Your task to perform on an android device: Clear the shopping cart on costco.com. Search for logitech g pro on costco.com, select the first entry, and add it to the cart. Image 0: 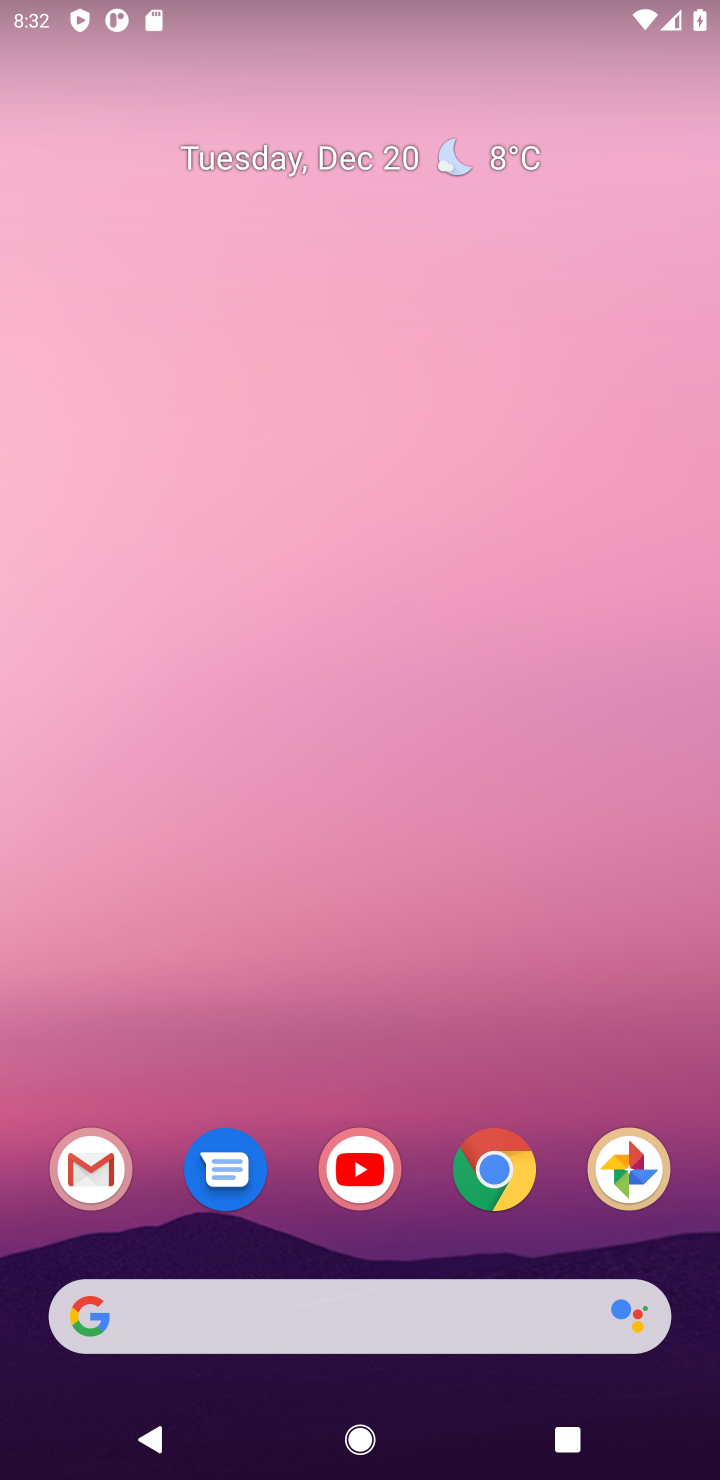
Step 0: click (478, 1185)
Your task to perform on an android device: Clear the shopping cart on costco.com. Search for logitech g pro on costco.com, select the first entry, and add it to the cart. Image 1: 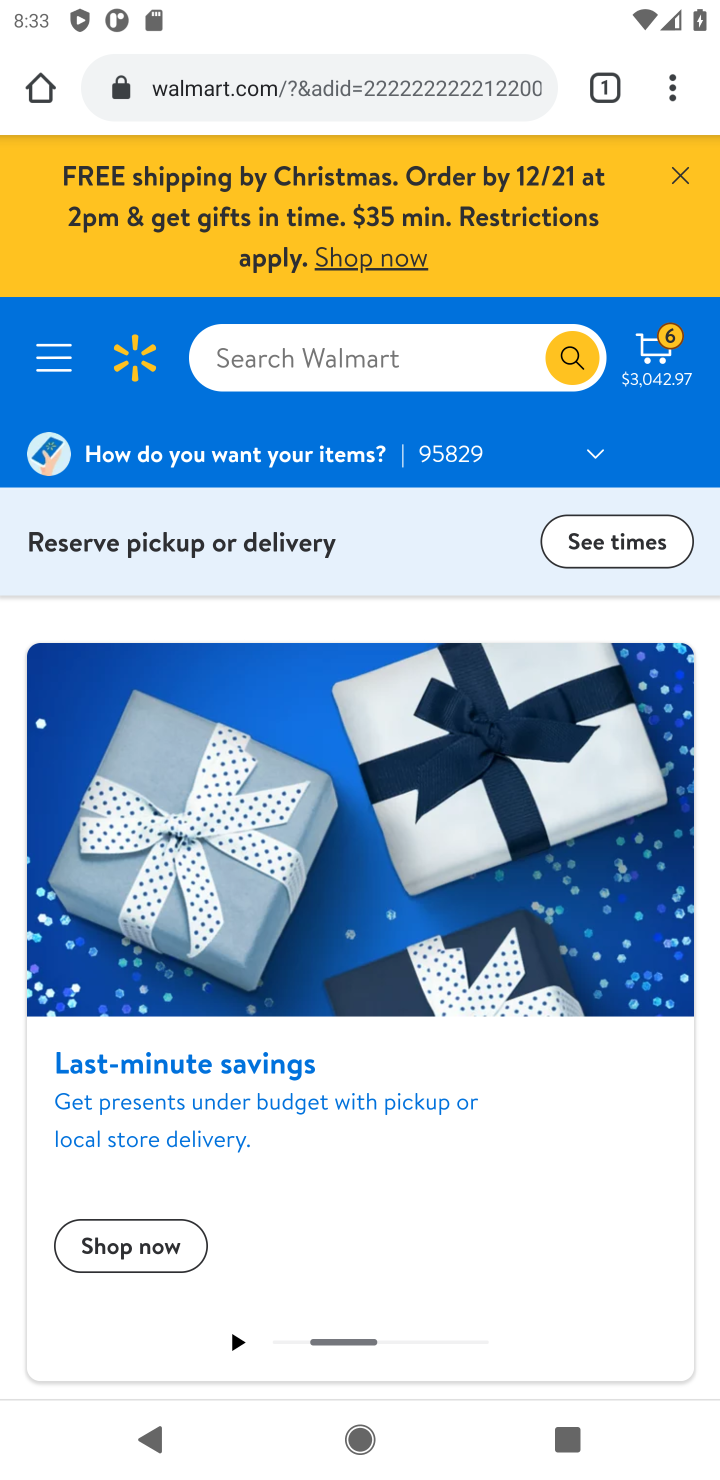
Step 1: click (370, 77)
Your task to perform on an android device: Clear the shopping cart on costco.com. Search for logitech g pro on costco.com, select the first entry, and add it to the cart. Image 2: 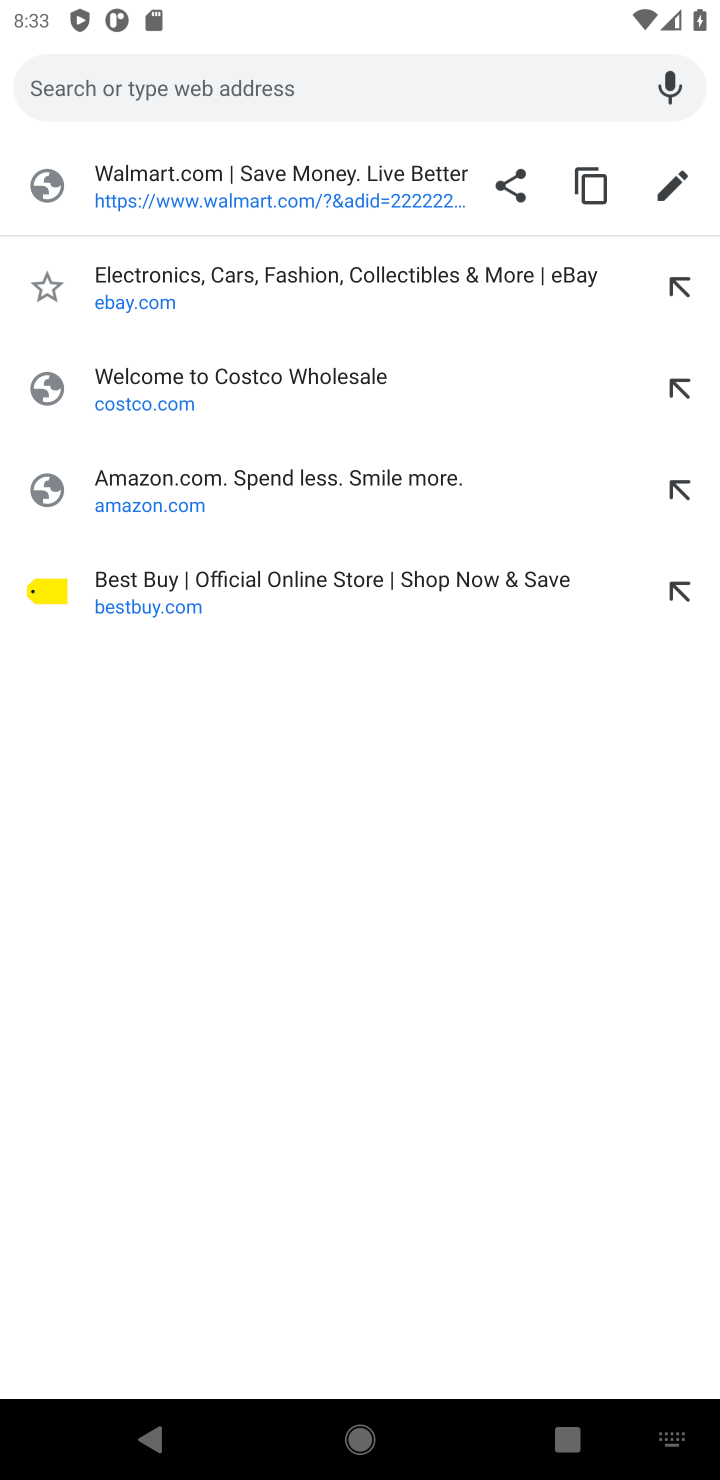
Step 2: type "costco"
Your task to perform on an android device: Clear the shopping cart on costco.com. Search for logitech g pro on costco.com, select the first entry, and add it to the cart. Image 3: 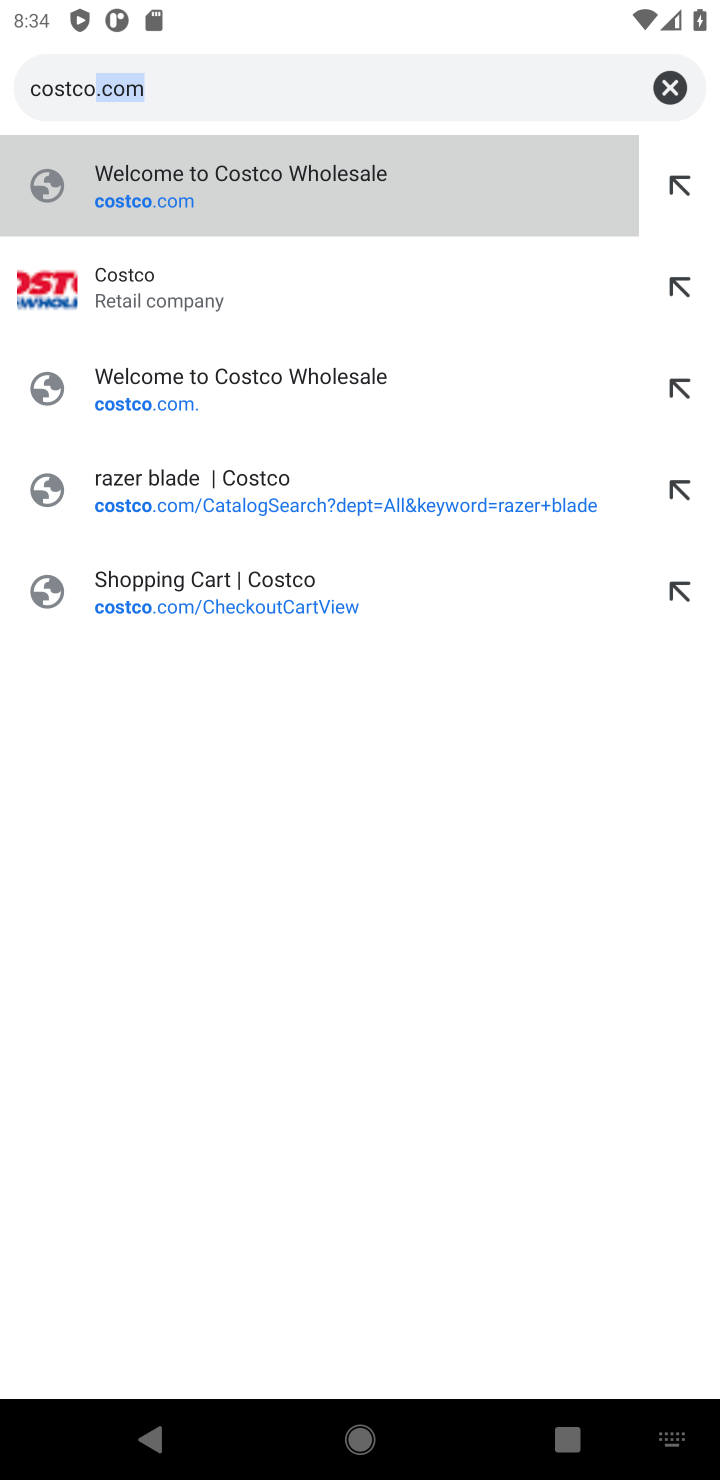
Step 3: click (361, 181)
Your task to perform on an android device: Clear the shopping cart on costco.com. Search for logitech g pro on costco.com, select the first entry, and add it to the cart. Image 4: 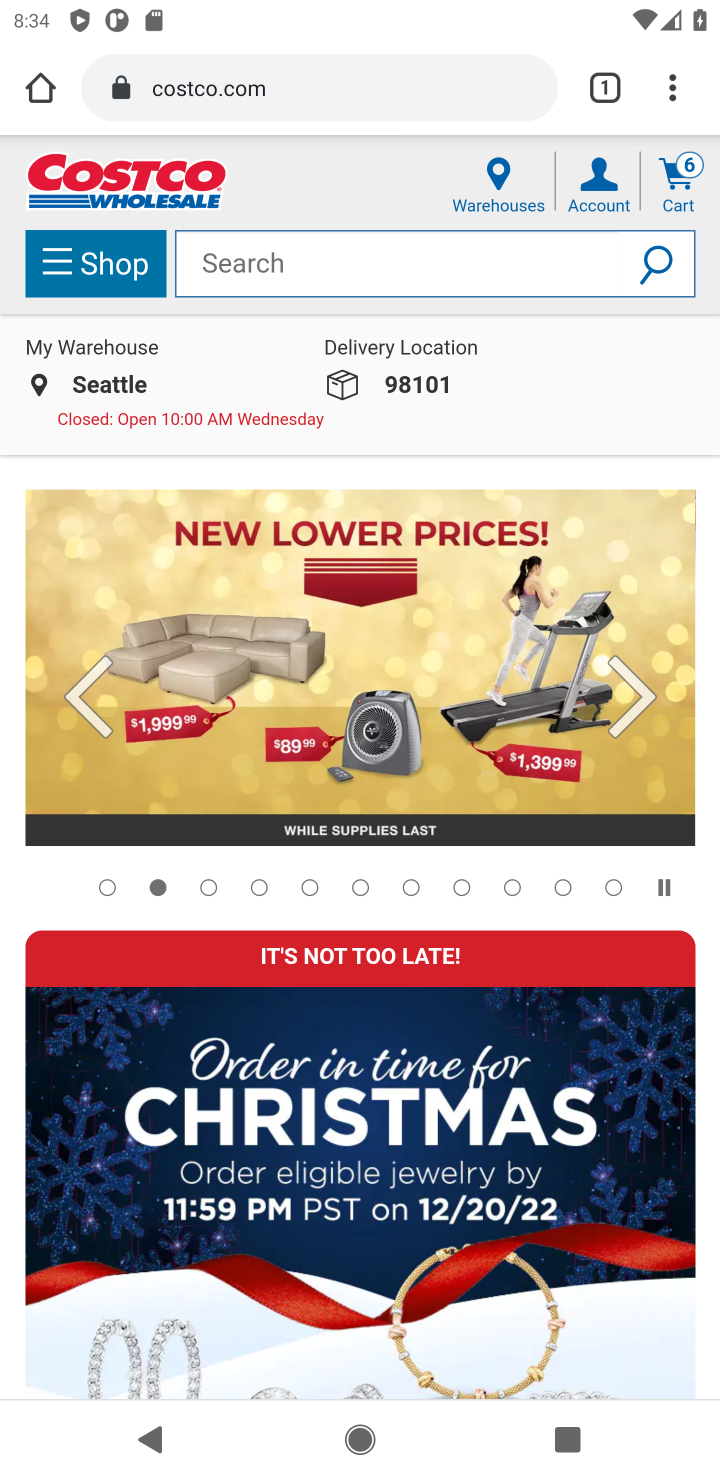
Step 4: click (274, 272)
Your task to perform on an android device: Clear the shopping cart on costco.com. Search for logitech g pro on costco.com, select the first entry, and add it to the cart. Image 5: 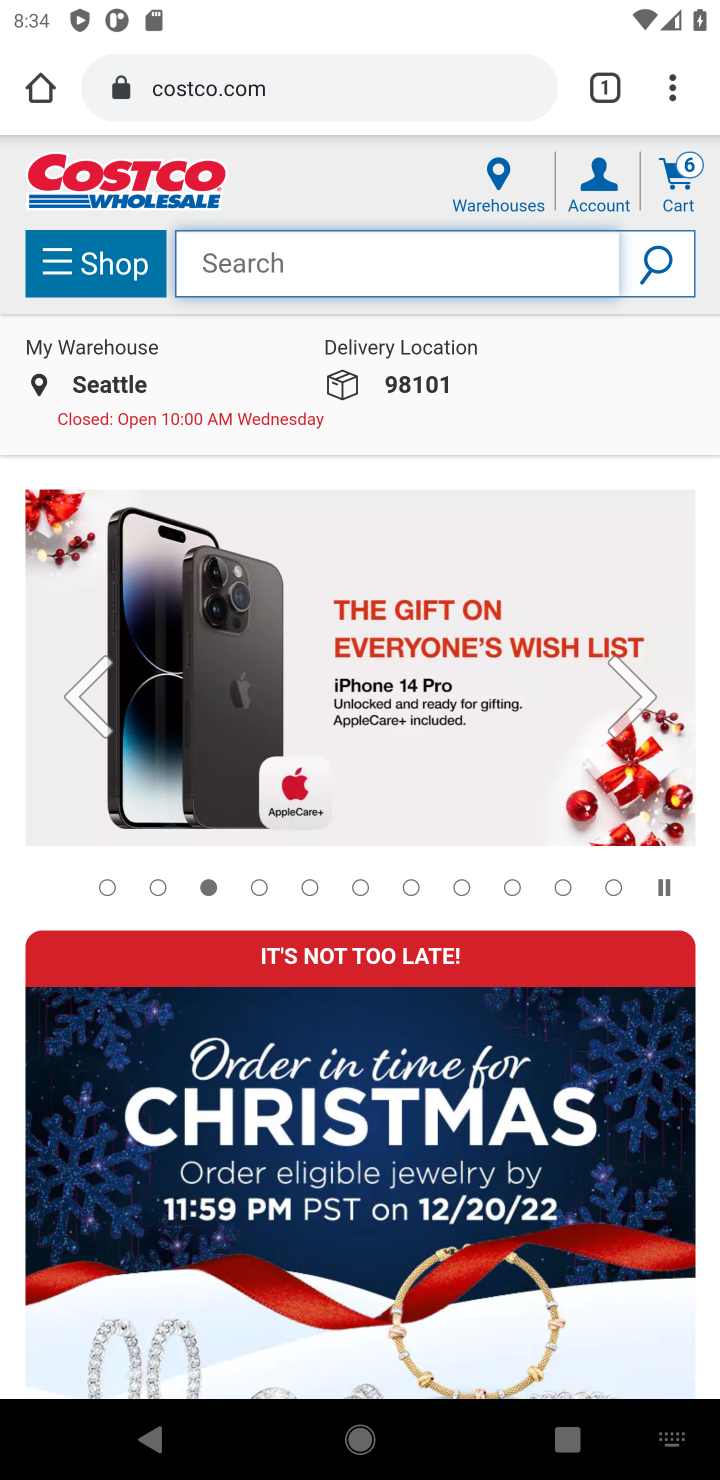
Step 5: type "logitech g pro"
Your task to perform on an android device: Clear the shopping cart on costco.com. Search for logitech g pro on costco.com, select the first entry, and add it to the cart. Image 6: 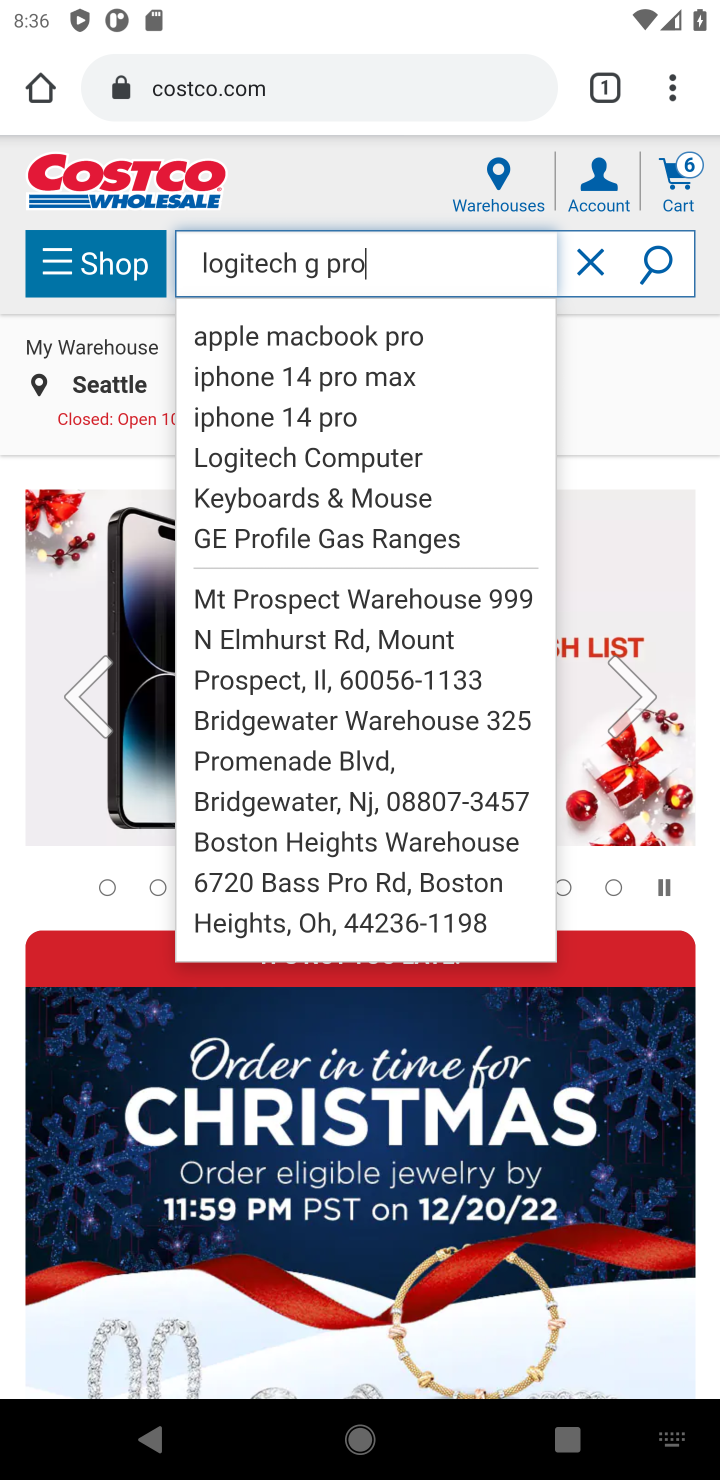
Step 6: click (653, 277)
Your task to perform on an android device: Clear the shopping cart on costco.com. Search for logitech g pro on costco.com, select the first entry, and add it to the cart. Image 7: 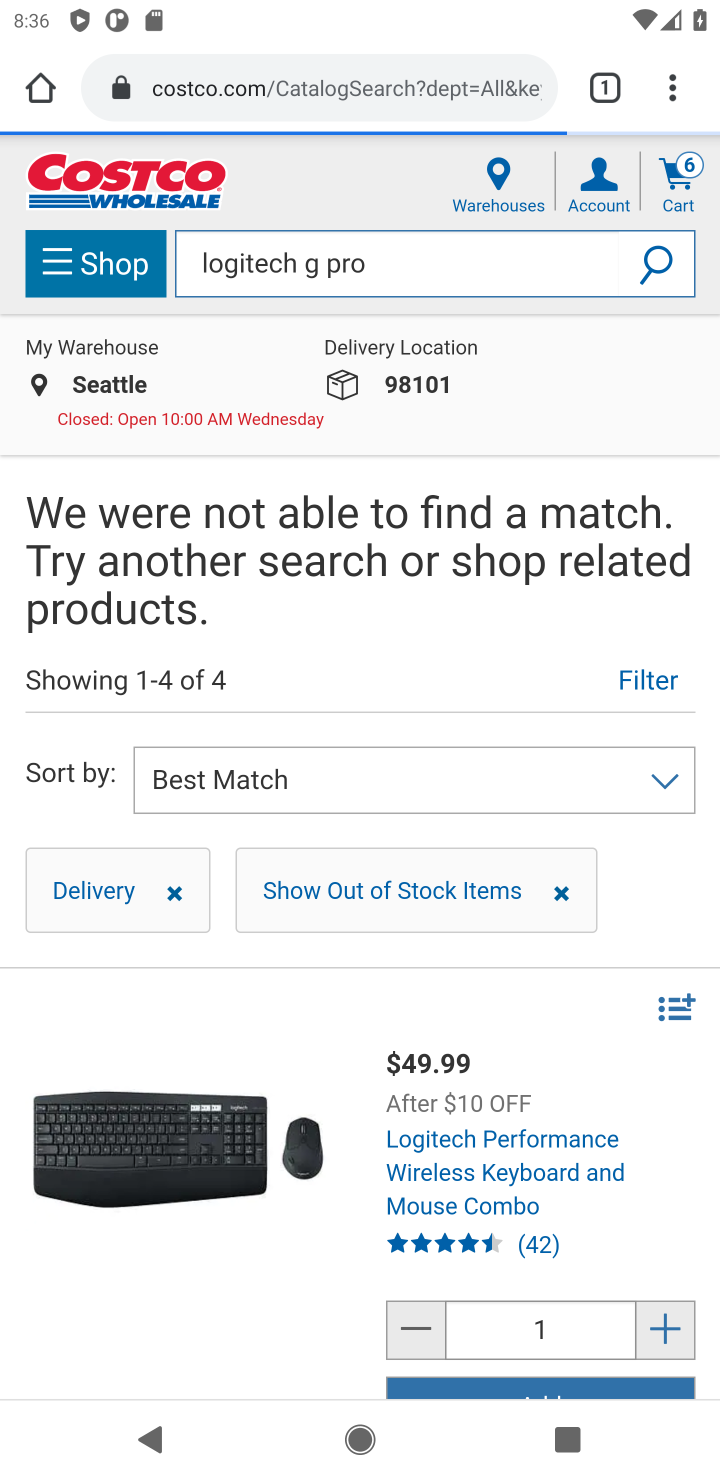
Step 7: click (474, 1160)
Your task to perform on an android device: Clear the shopping cart on costco.com. Search for logitech g pro on costco.com, select the first entry, and add it to the cart. Image 8: 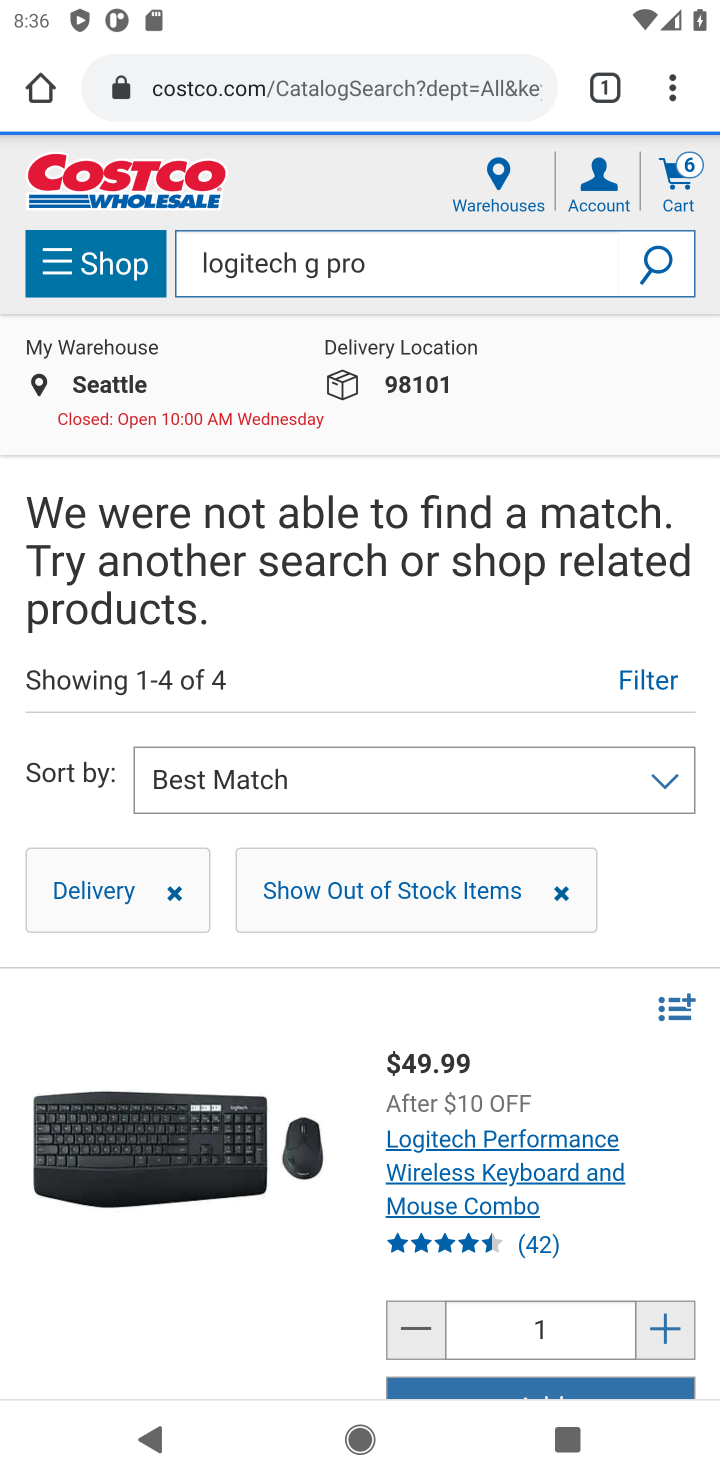
Step 8: task complete